Your task to perform on an android device: Open calendar and show me the second week of next month Image 0: 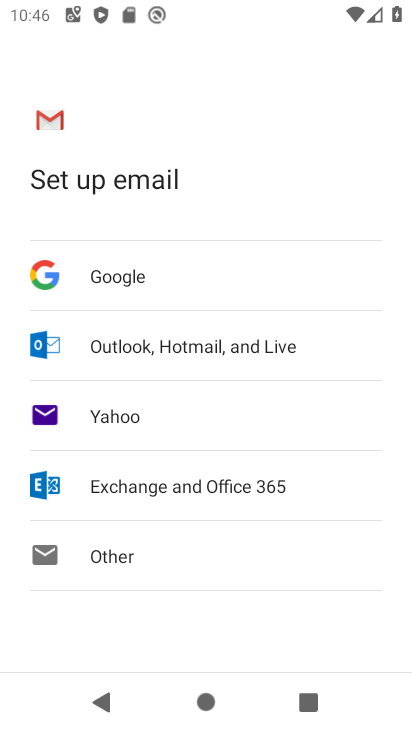
Step 0: press home button
Your task to perform on an android device: Open calendar and show me the second week of next month Image 1: 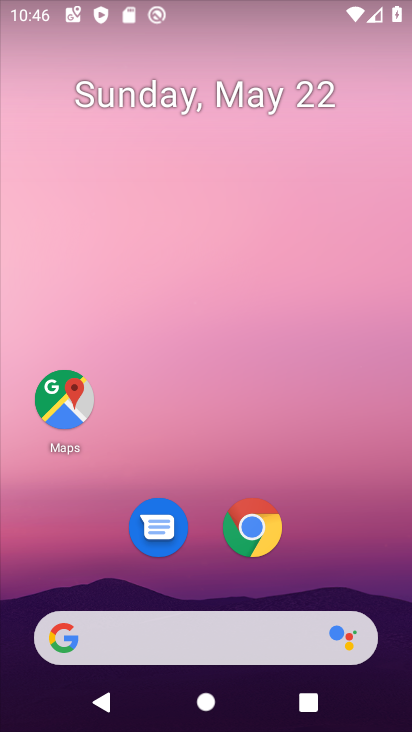
Step 1: drag from (378, 526) to (332, 83)
Your task to perform on an android device: Open calendar and show me the second week of next month Image 2: 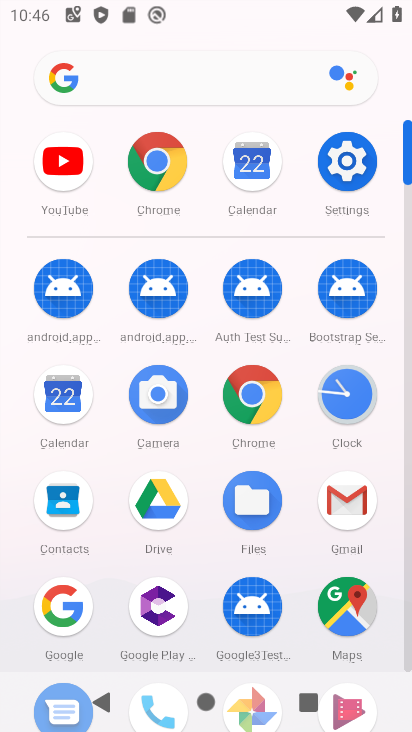
Step 2: click (64, 419)
Your task to perform on an android device: Open calendar and show me the second week of next month Image 3: 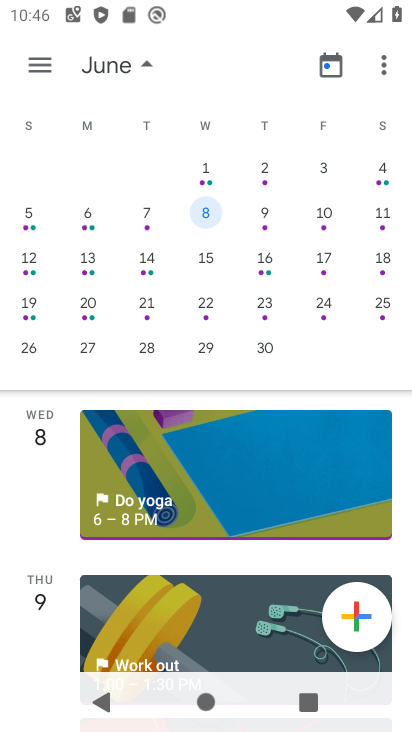
Step 3: task complete